Your task to perform on an android device: Open internet settings Image 0: 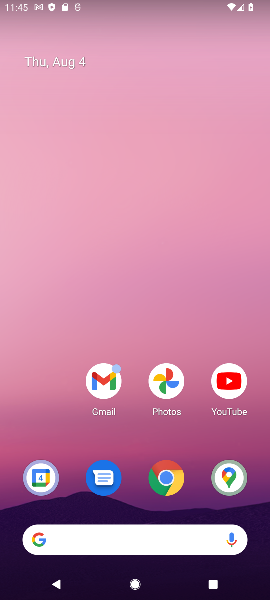
Step 0: drag from (111, 3) to (51, 474)
Your task to perform on an android device: Open internet settings Image 1: 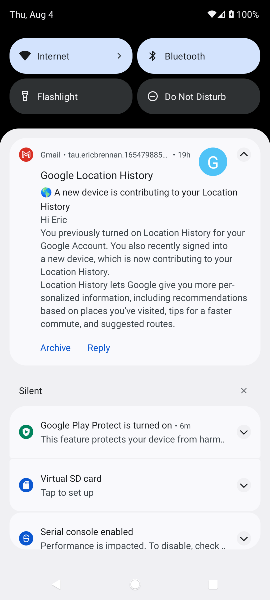
Step 1: click (62, 50)
Your task to perform on an android device: Open internet settings Image 2: 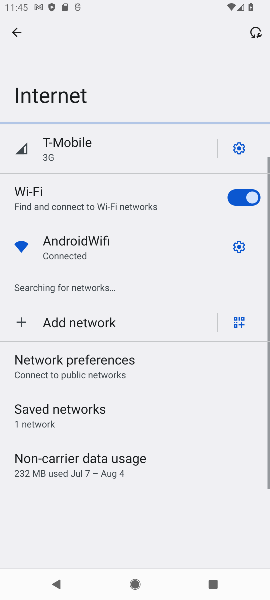
Step 2: task complete